Your task to perform on an android device: change alarm snooze length Image 0: 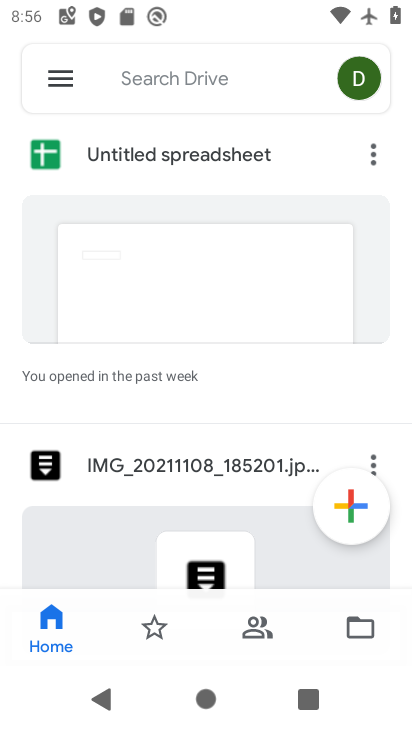
Step 0: press home button
Your task to perform on an android device: change alarm snooze length Image 1: 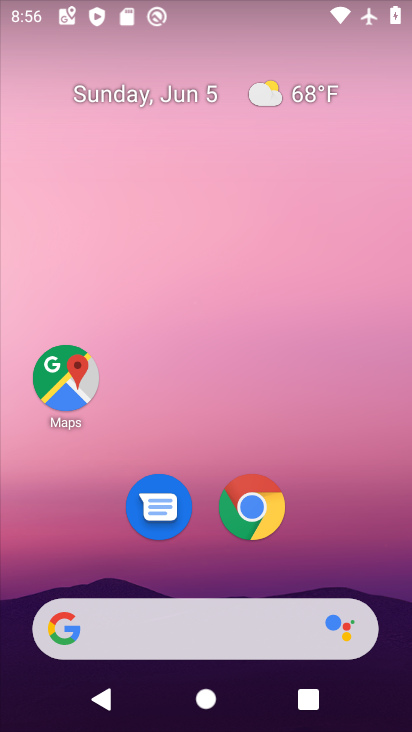
Step 1: drag from (236, 575) to (235, 0)
Your task to perform on an android device: change alarm snooze length Image 2: 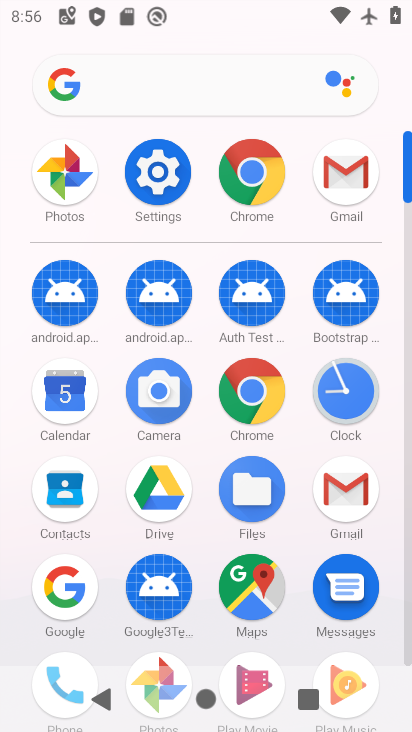
Step 2: click (333, 398)
Your task to perform on an android device: change alarm snooze length Image 3: 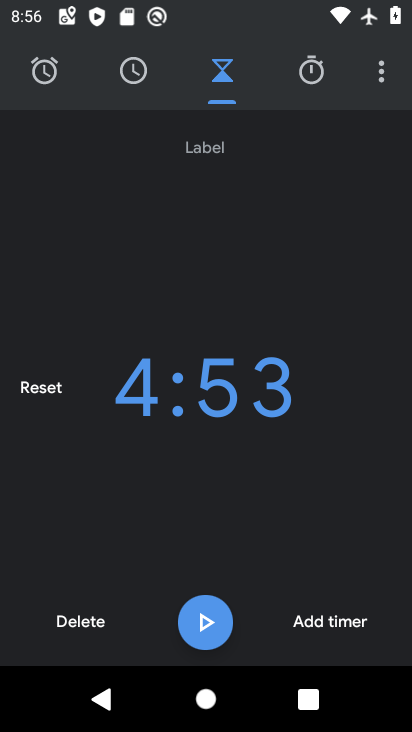
Step 3: click (377, 69)
Your task to perform on an android device: change alarm snooze length Image 4: 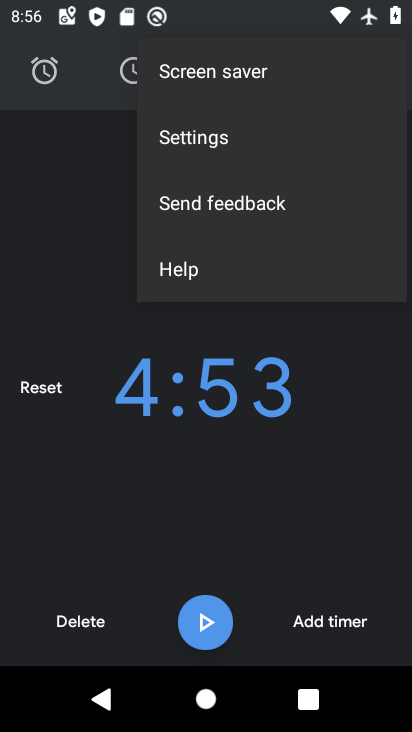
Step 4: click (206, 154)
Your task to perform on an android device: change alarm snooze length Image 5: 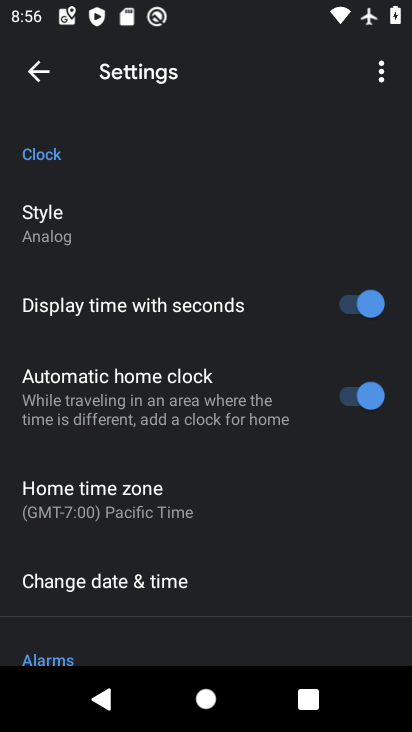
Step 5: drag from (160, 445) to (244, 74)
Your task to perform on an android device: change alarm snooze length Image 6: 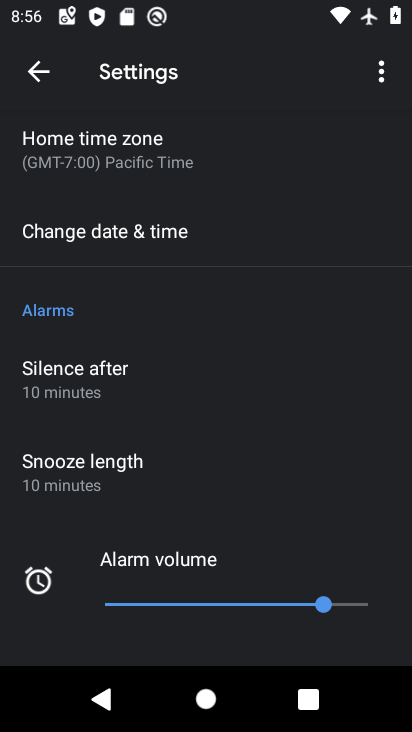
Step 6: drag from (219, 477) to (226, 390)
Your task to perform on an android device: change alarm snooze length Image 7: 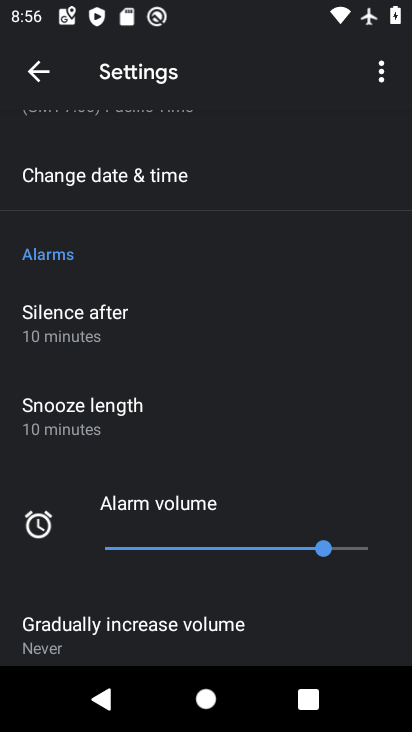
Step 7: click (141, 422)
Your task to perform on an android device: change alarm snooze length Image 8: 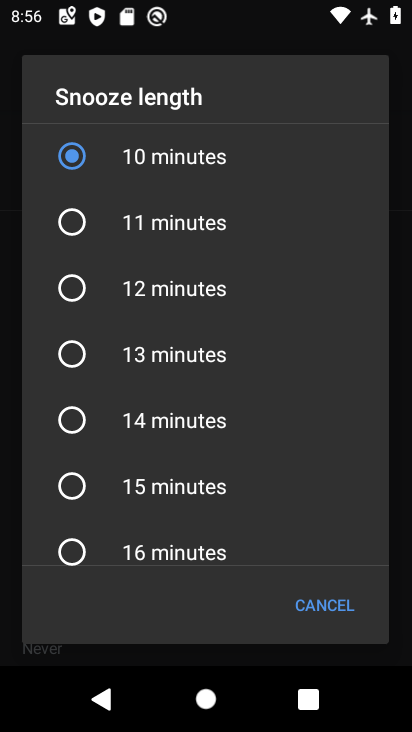
Step 8: click (71, 367)
Your task to perform on an android device: change alarm snooze length Image 9: 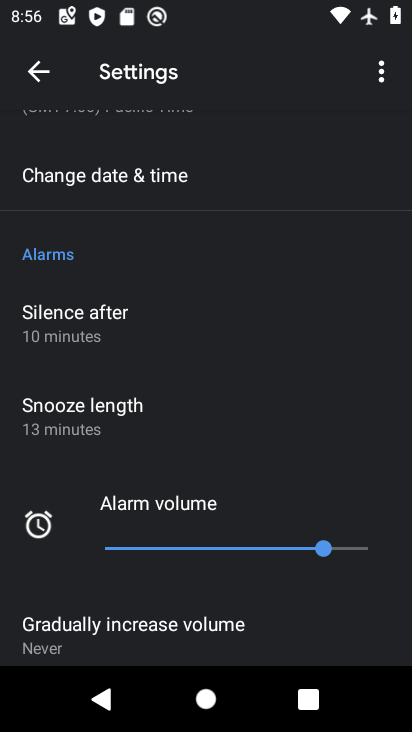
Step 9: task complete